Your task to perform on an android device: add a contact Image 0: 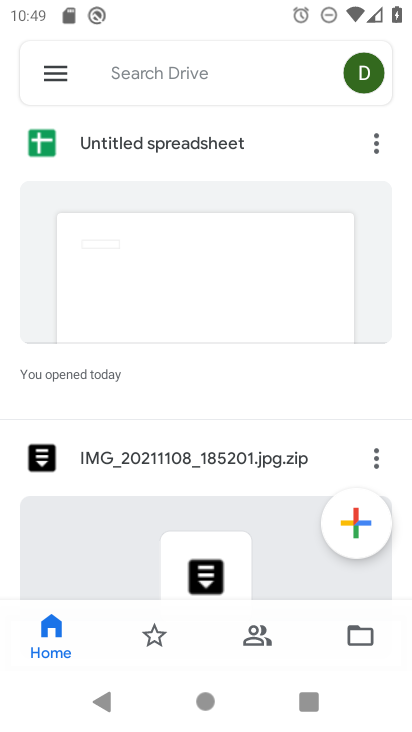
Step 0: press home button
Your task to perform on an android device: add a contact Image 1: 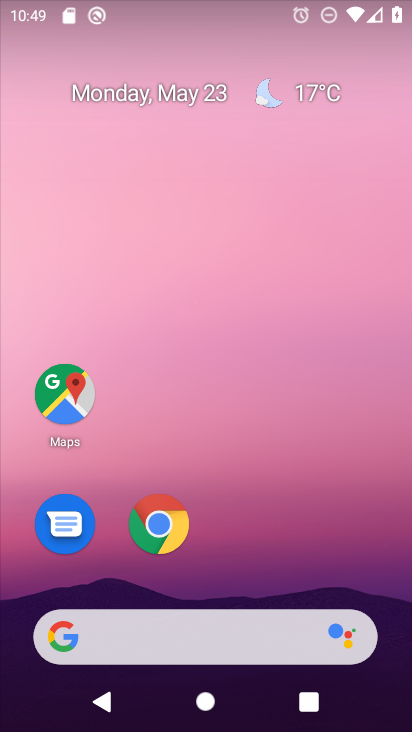
Step 1: drag from (240, 562) to (213, 140)
Your task to perform on an android device: add a contact Image 2: 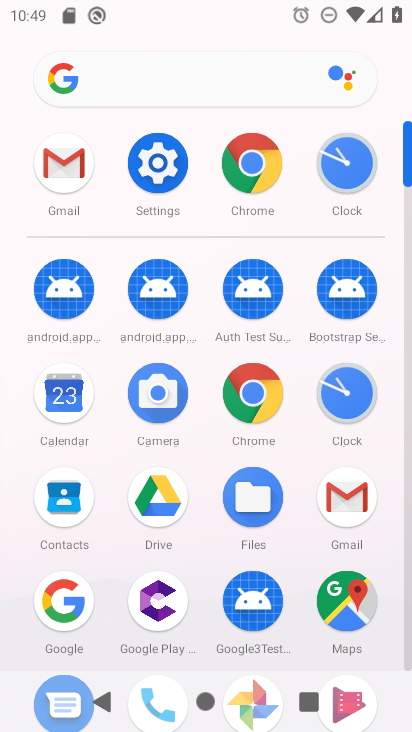
Step 2: click (78, 495)
Your task to perform on an android device: add a contact Image 3: 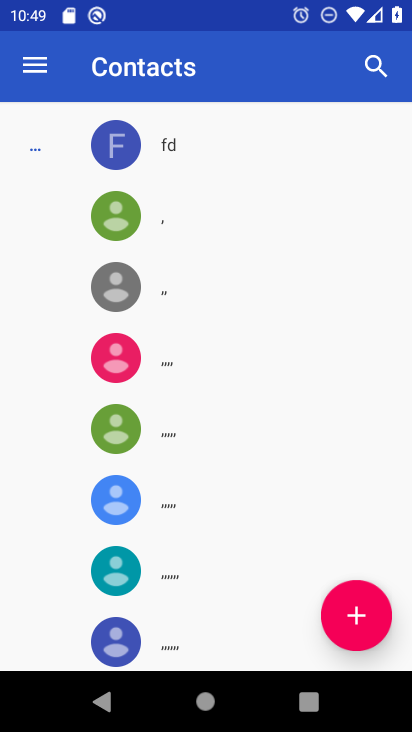
Step 3: click (359, 614)
Your task to perform on an android device: add a contact Image 4: 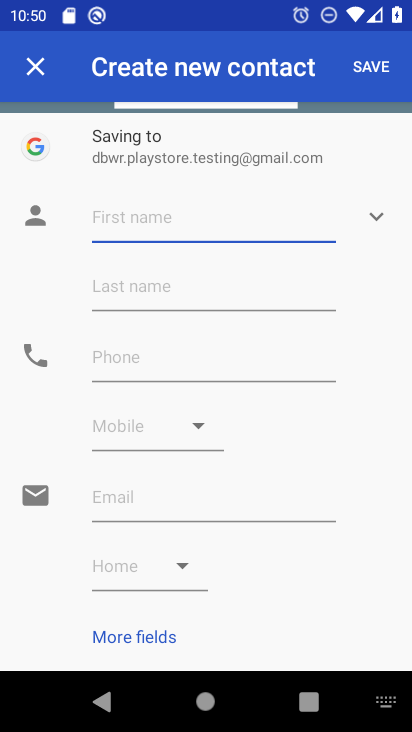
Step 4: type "dbfgbfgb"
Your task to perform on an android device: add a contact Image 5: 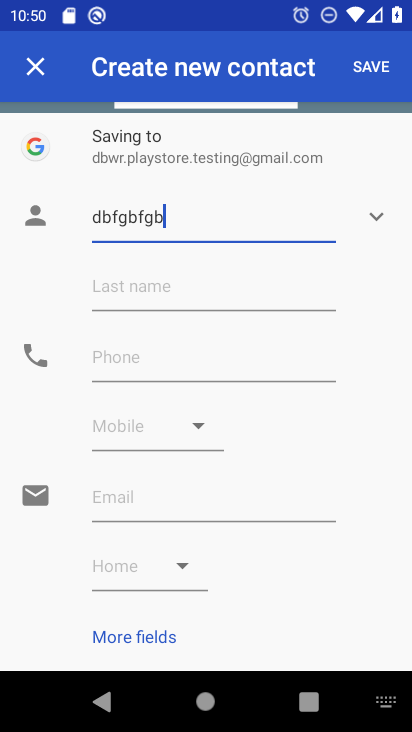
Step 5: click (155, 349)
Your task to perform on an android device: add a contact Image 6: 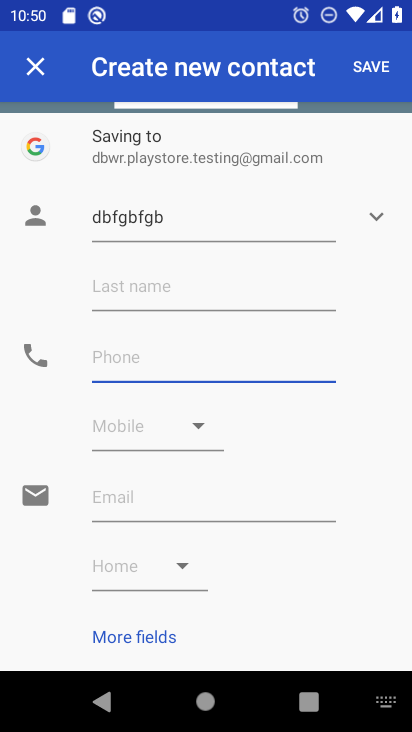
Step 6: type "865675468"
Your task to perform on an android device: add a contact Image 7: 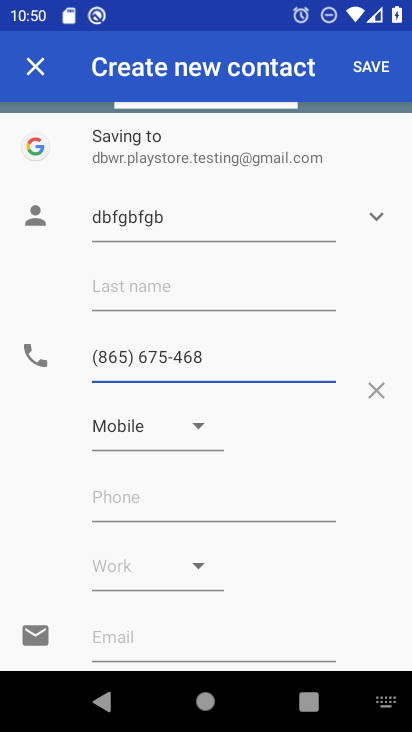
Step 7: click (382, 65)
Your task to perform on an android device: add a contact Image 8: 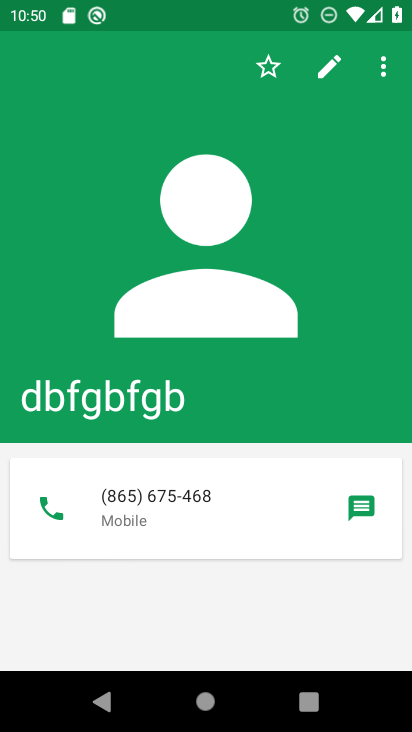
Step 8: task complete